Your task to perform on an android device: Open Youtube and go to "Your channel" Image 0: 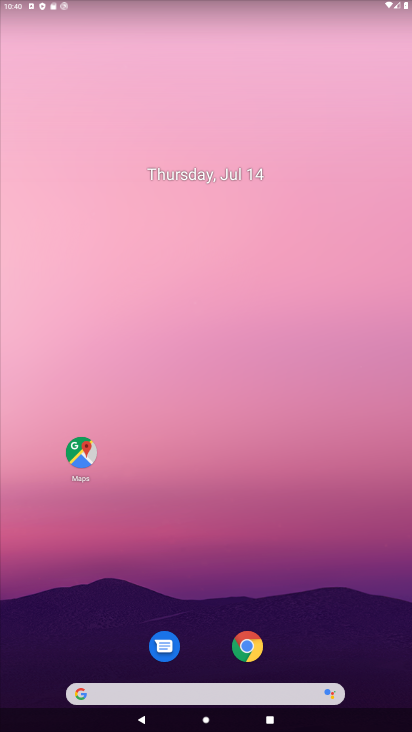
Step 0: drag from (195, 632) to (167, 166)
Your task to perform on an android device: Open Youtube and go to "Your channel" Image 1: 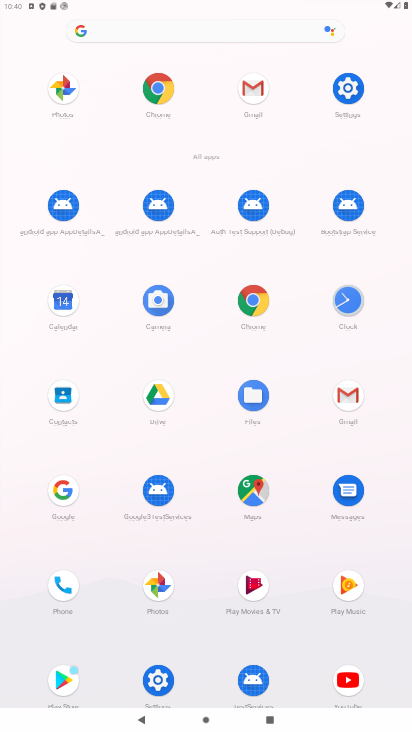
Step 1: click (351, 674)
Your task to perform on an android device: Open Youtube and go to "Your channel" Image 2: 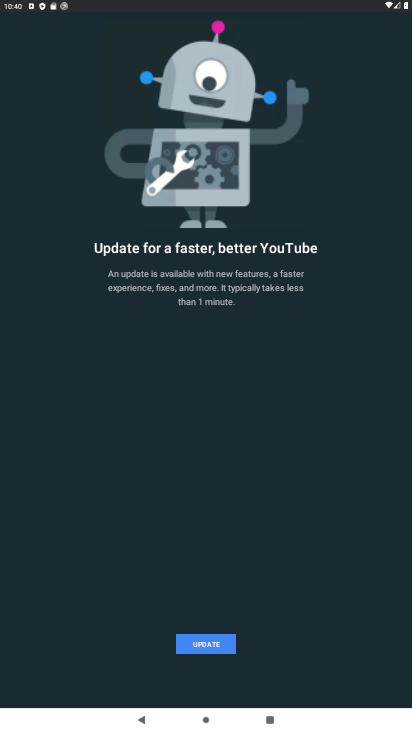
Step 2: click (214, 633)
Your task to perform on an android device: Open Youtube and go to "Your channel" Image 3: 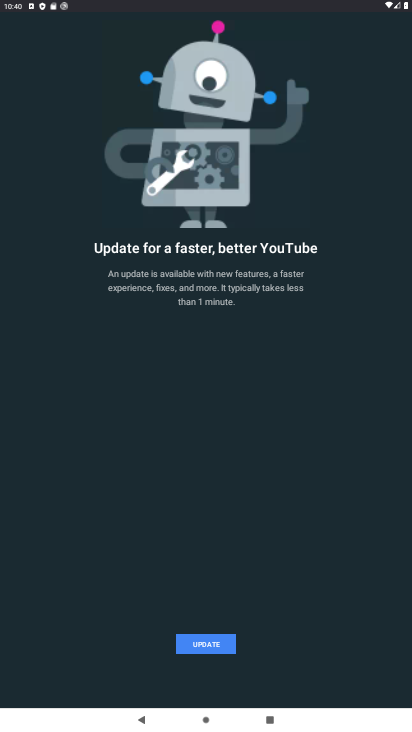
Step 3: click (207, 645)
Your task to perform on an android device: Open Youtube and go to "Your channel" Image 4: 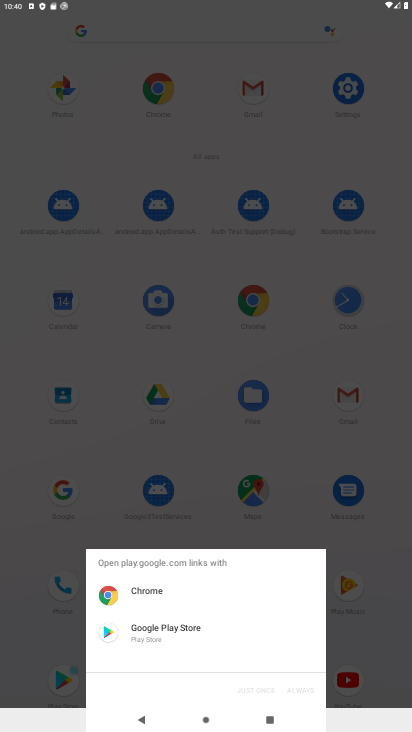
Step 4: click (158, 634)
Your task to perform on an android device: Open Youtube and go to "Your channel" Image 5: 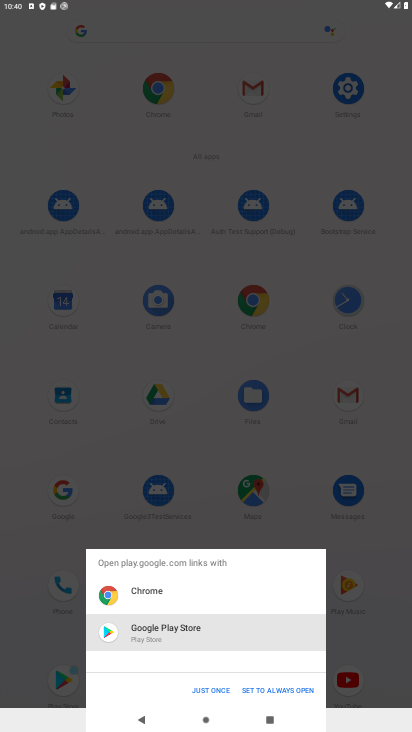
Step 5: click (189, 689)
Your task to perform on an android device: Open Youtube and go to "Your channel" Image 6: 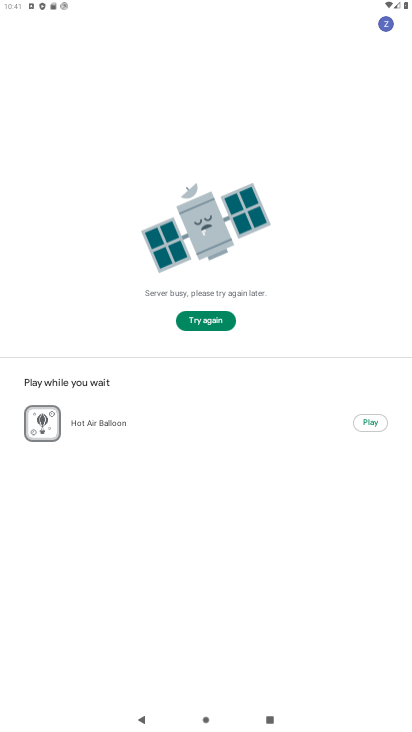
Step 6: task complete